Your task to perform on an android device: Go to sound settings Image 0: 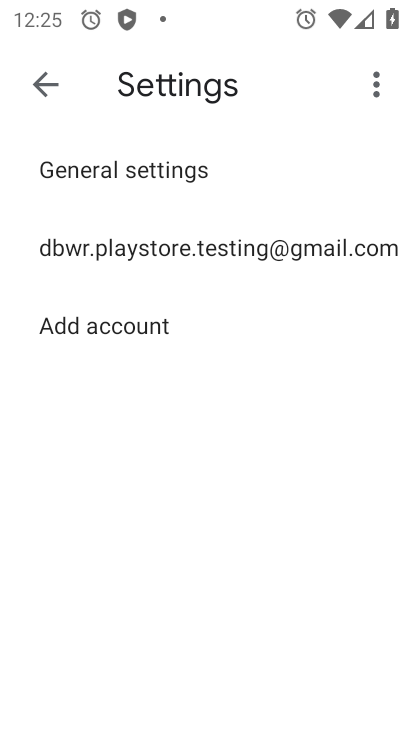
Step 0: press home button
Your task to perform on an android device: Go to sound settings Image 1: 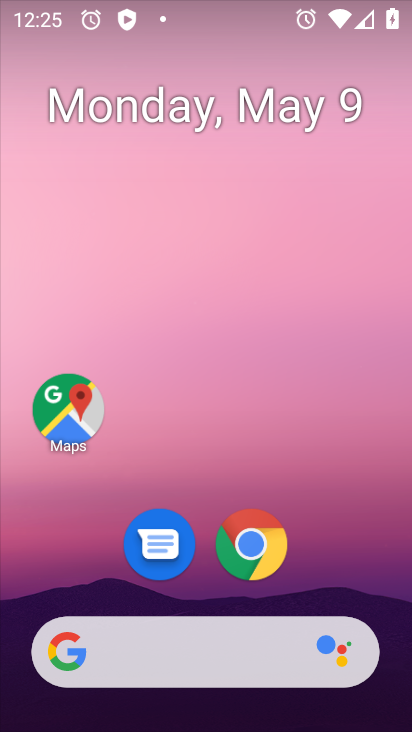
Step 1: drag from (145, 637) to (110, 52)
Your task to perform on an android device: Go to sound settings Image 2: 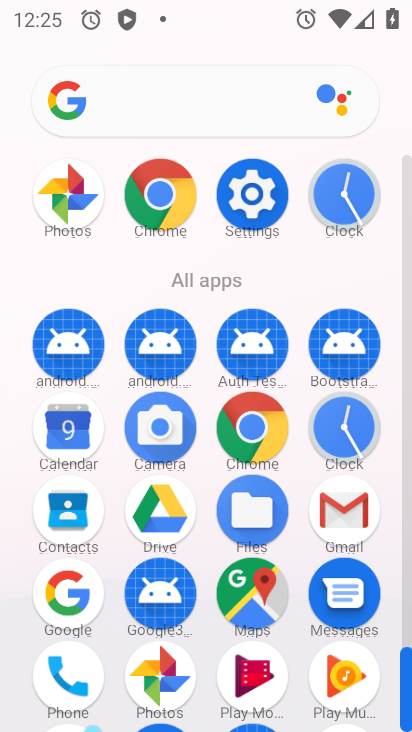
Step 2: click (243, 193)
Your task to perform on an android device: Go to sound settings Image 3: 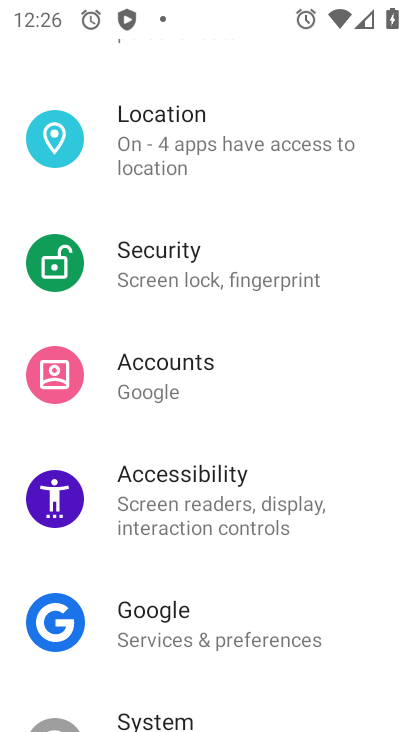
Step 3: drag from (168, 161) to (193, 616)
Your task to perform on an android device: Go to sound settings Image 4: 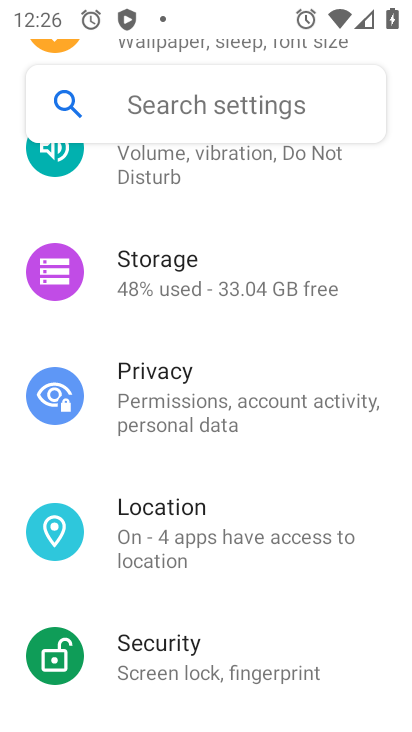
Step 4: drag from (214, 286) to (240, 697)
Your task to perform on an android device: Go to sound settings Image 5: 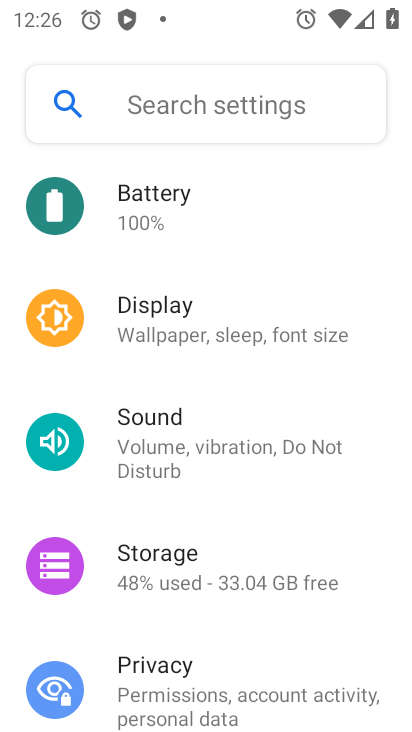
Step 5: click (159, 418)
Your task to perform on an android device: Go to sound settings Image 6: 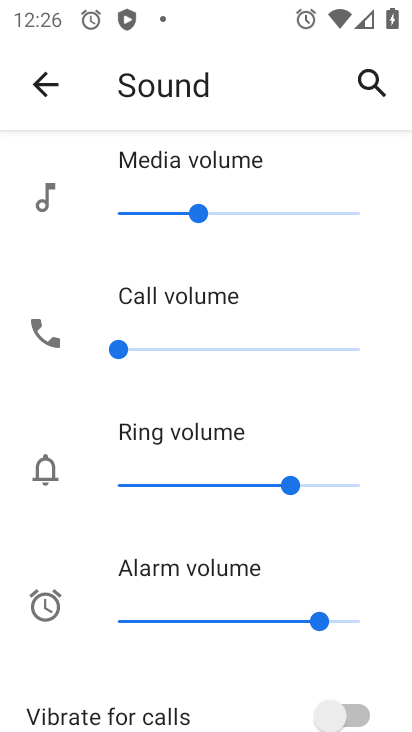
Step 6: task complete